Your task to perform on an android device: Open maps Image 0: 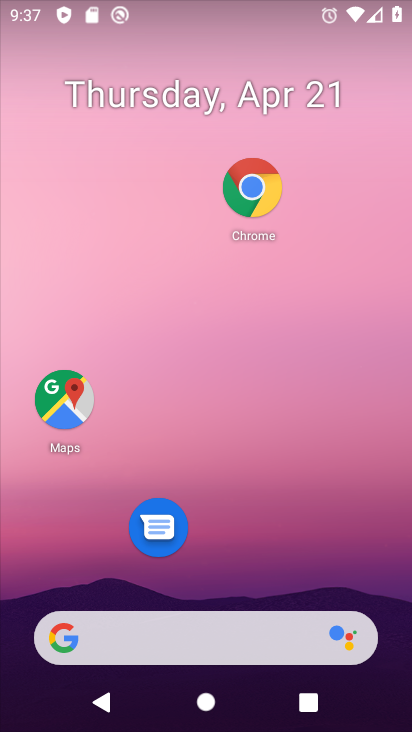
Step 0: click (84, 395)
Your task to perform on an android device: Open maps Image 1: 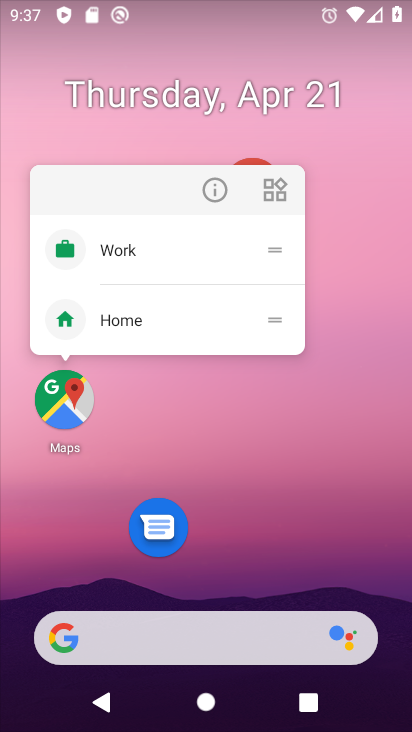
Step 1: click (69, 437)
Your task to perform on an android device: Open maps Image 2: 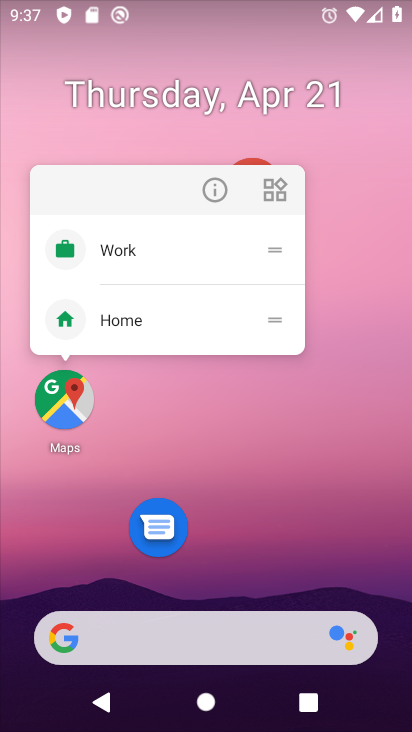
Step 2: click (67, 437)
Your task to perform on an android device: Open maps Image 3: 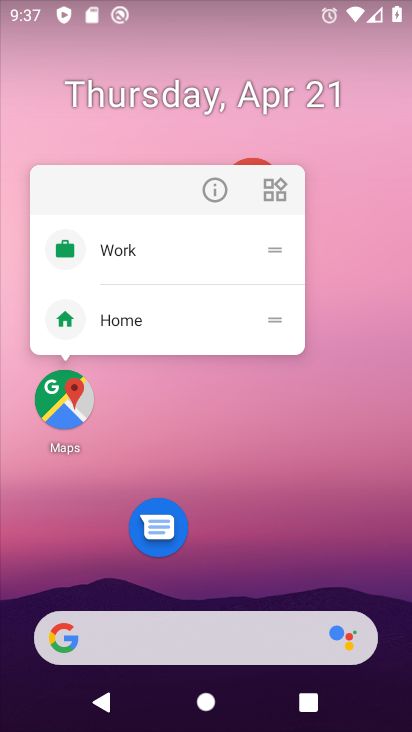
Step 3: click (67, 409)
Your task to perform on an android device: Open maps Image 4: 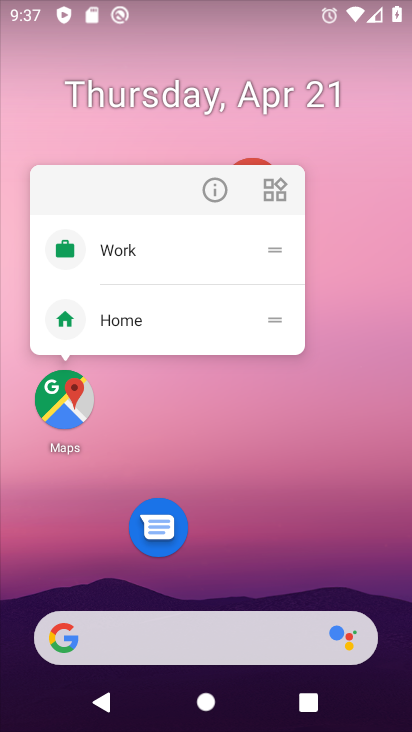
Step 4: click (67, 409)
Your task to perform on an android device: Open maps Image 5: 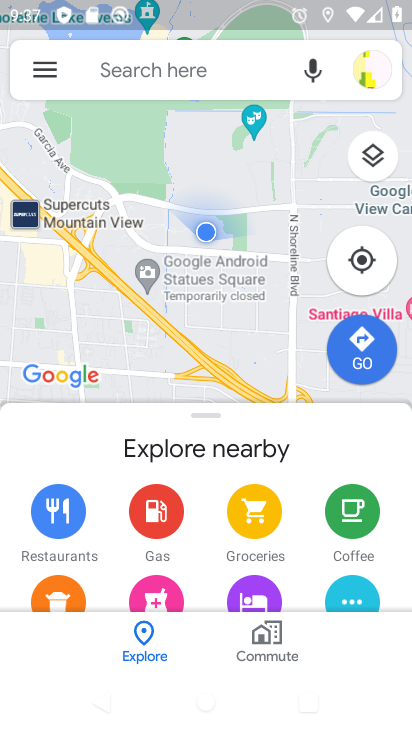
Step 5: task complete